Your task to perform on an android device: Open the map Image 0: 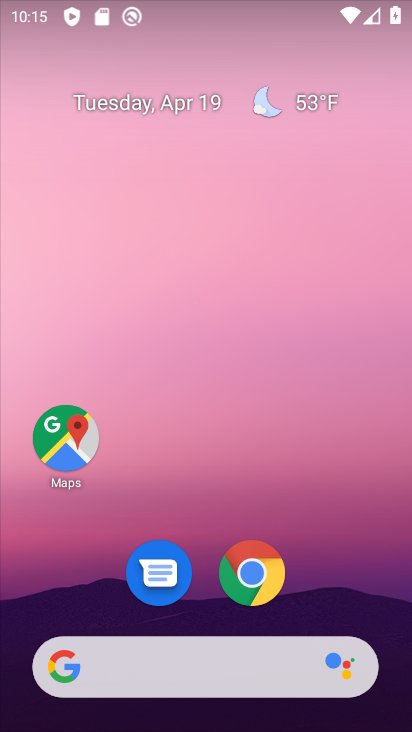
Step 0: drag from (213, 430) to (213, 72)
Your task to perform on an android device: Open the map Image 1: 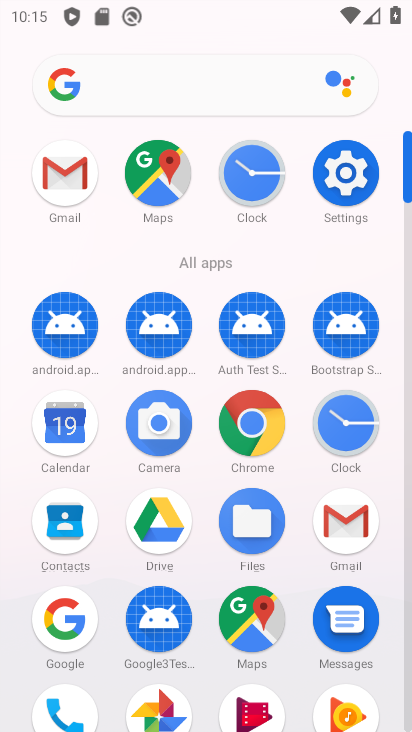
Step 1: click (158, 173)
Your task to perform on an android device: Open the map Image 2: 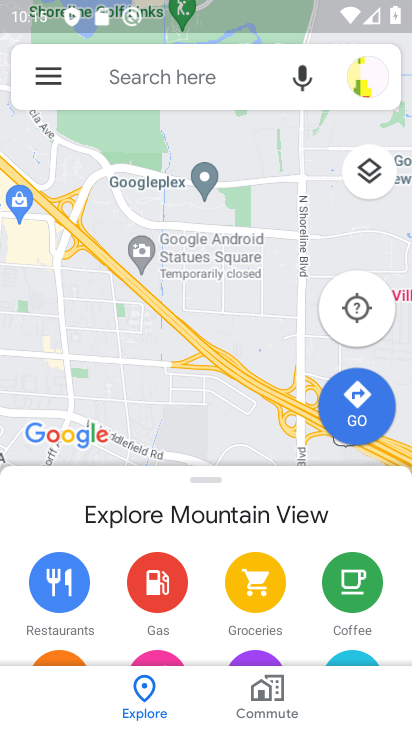
Step 2: task complete